Your task to perform on an android device: show emergency info Image 0: 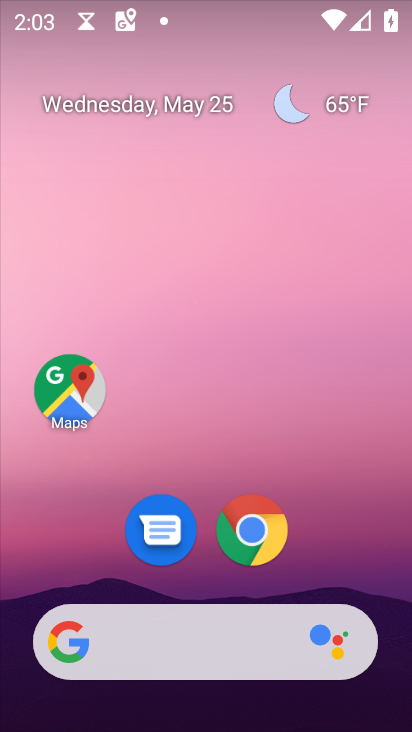
Step 0: drag from (302, 579) to (319, 306)
Your task to perform on an android device: show emergency info Image 1: 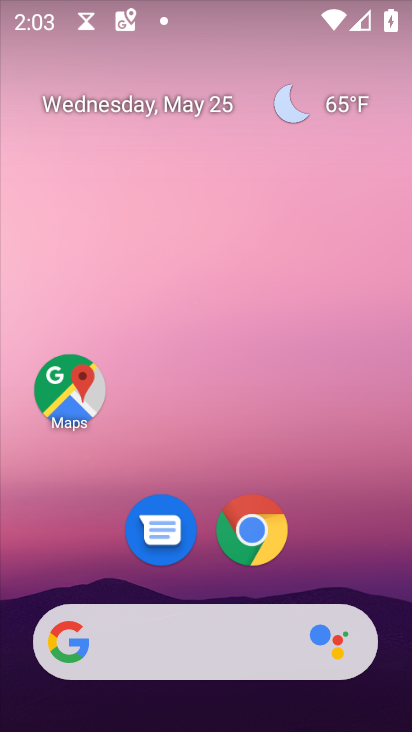
Step 1: drag from (344, 554) to (358, 231)
Your task to perform on an android device: show emergency info Image 2: 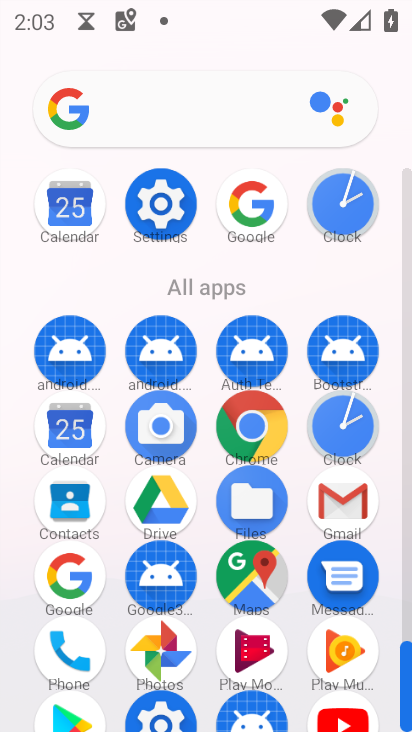
Step 2: click (174, 207)
Your task to perform on an android device: show emergency info Image 3: 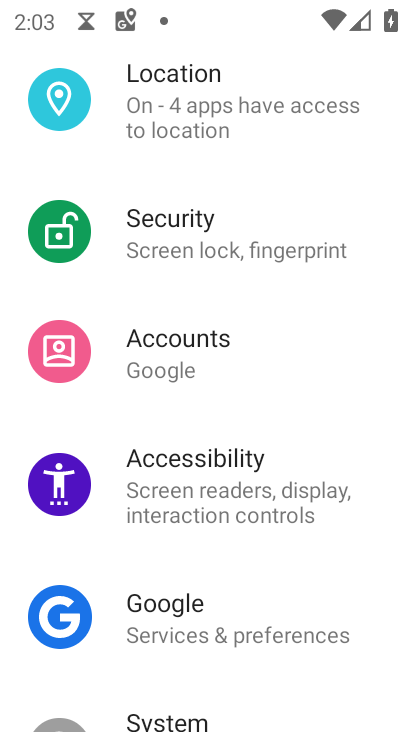
Step 3: drag from (259, 652) to (243, 119)
Your task to perform on an android device: show emergency info Image 4: 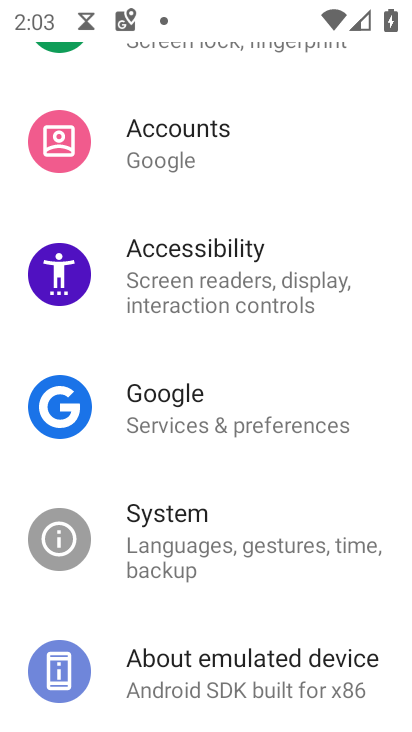
Step 4: click (237, 663)
Your task to perform on an android device: show emergency info Image 5: 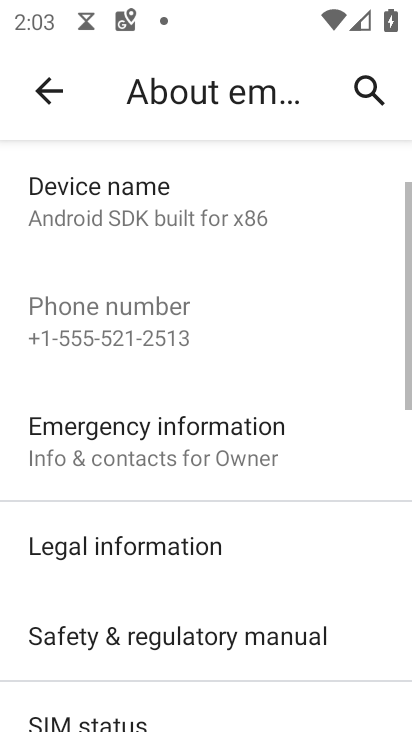
Step 5: click (232, 445)
Your task to perform on an android device: show emergency info Image 6: 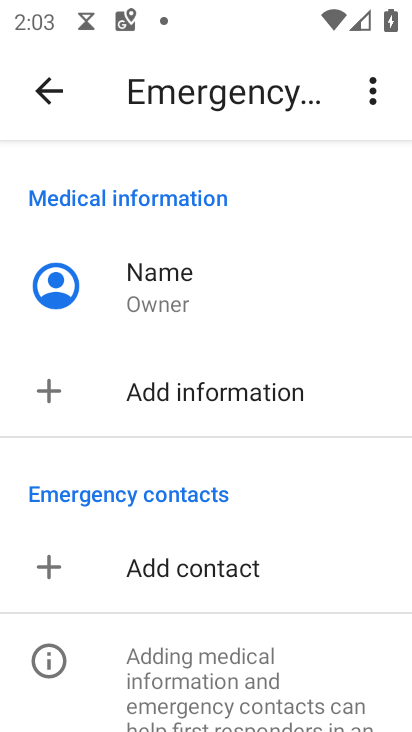
Step 6: task complete